Your task to perform on an android device: Show me popular games on the Play Store Image 0: 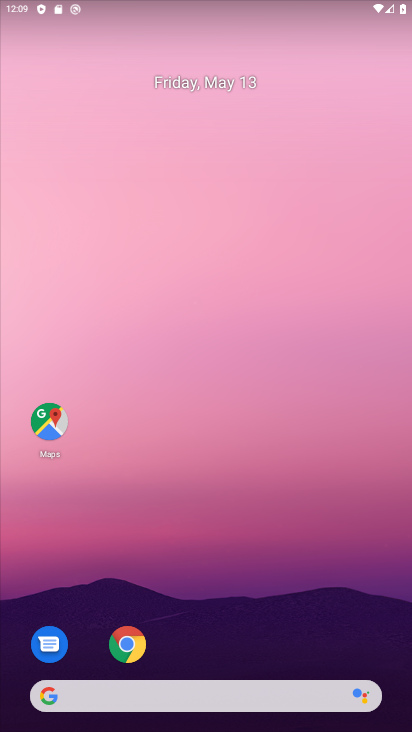
Step 0: drag from (277, 639) to (269, 84)
Your task to perform on an android device: Show me popular games on the Play Store Image 1: 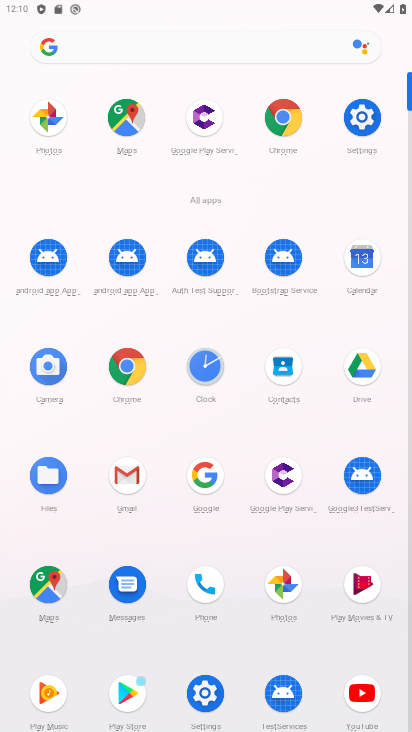
Step 1: click (138, 682)
Your task to perform on an android device: Show me popular games on the Play Store Image 2: 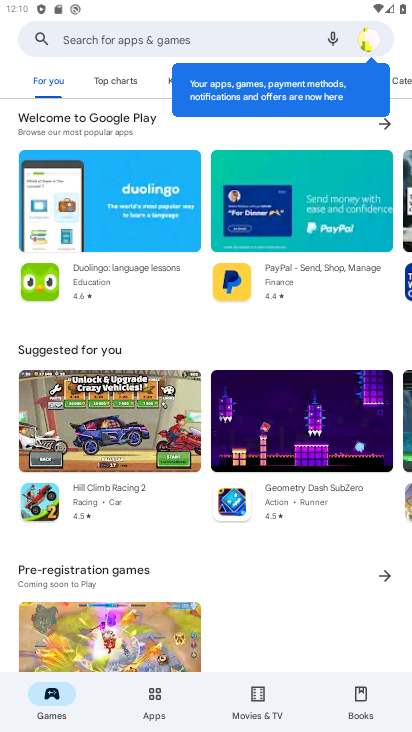
Step 2: click (179, 40)
Your task to perform on an android device: Show me popular games on the Play Store Image 3: 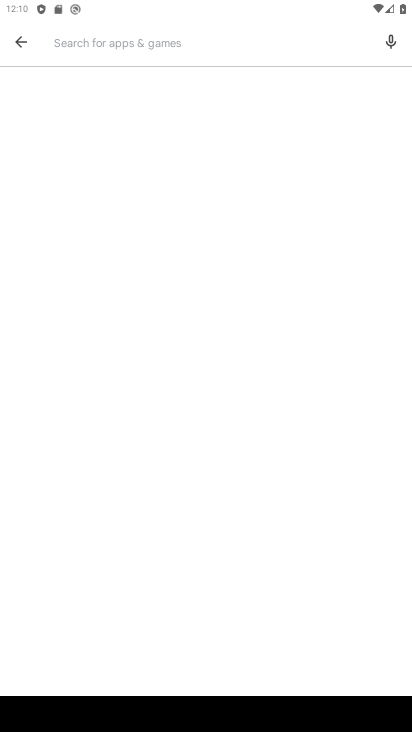
Step 3: type "popular games"
Your task to perform on an android device: Show me popular games on the Play Store Image 4: 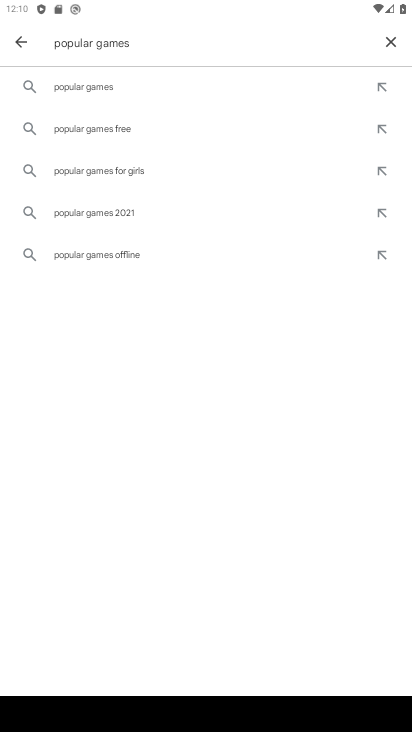
Step 4: click (114, 84)
Your task to perform on an android device: Show me popular games on the Play Store Image 5: 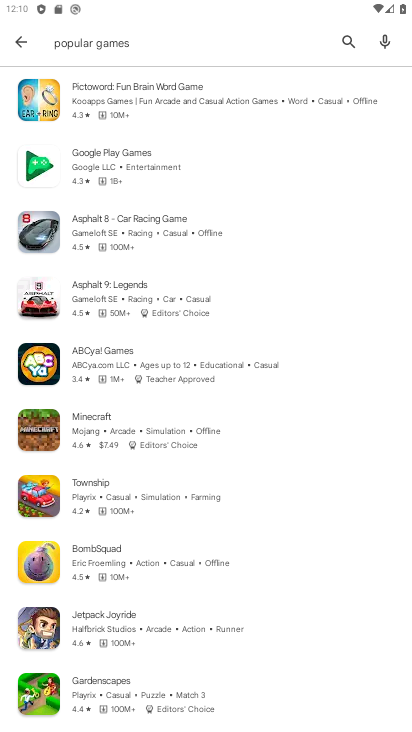
Step 5: task complete